Your task to perform on an android device: Open calendar and show me the first week of next month Image 0: 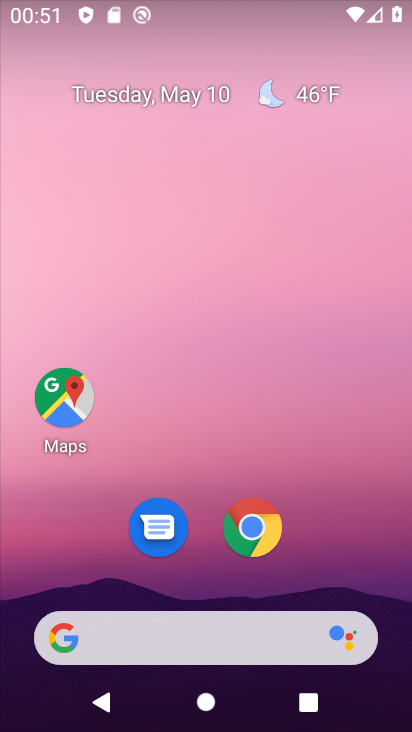
Step 0: drag from (318, 505) to (269, 184)
Your task to perform on an android device: Open calendar and show me the first week of next month Image 1: 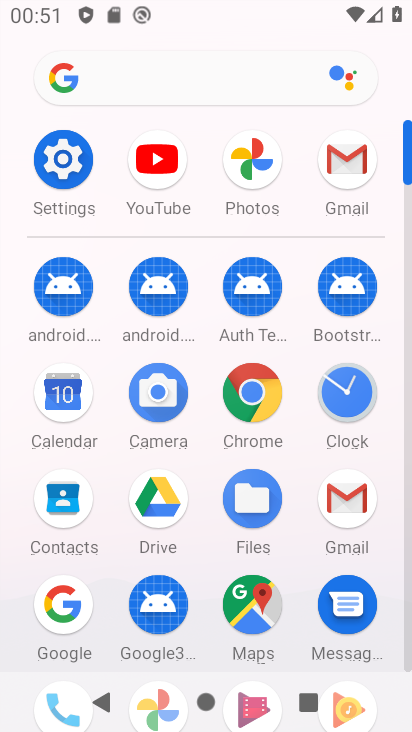
Step 1: click (62, 398)
Your task to perform on an android device: Open calendar and show me the first week of next month Image 2: 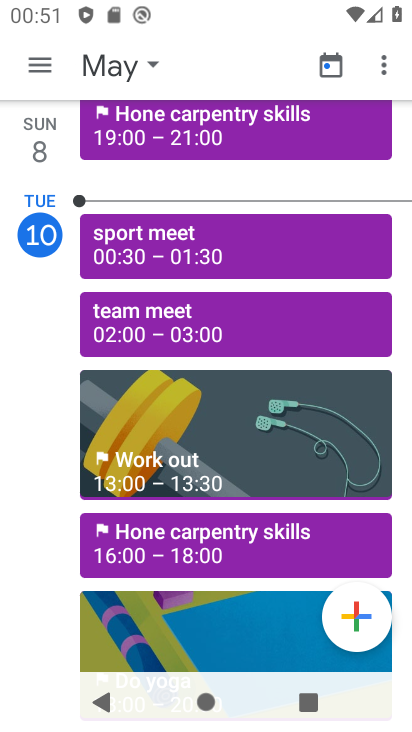
Step 2: click (123, 61)
Your task to perform on an android device: Open calendar and show me the first week of next month Image 3: 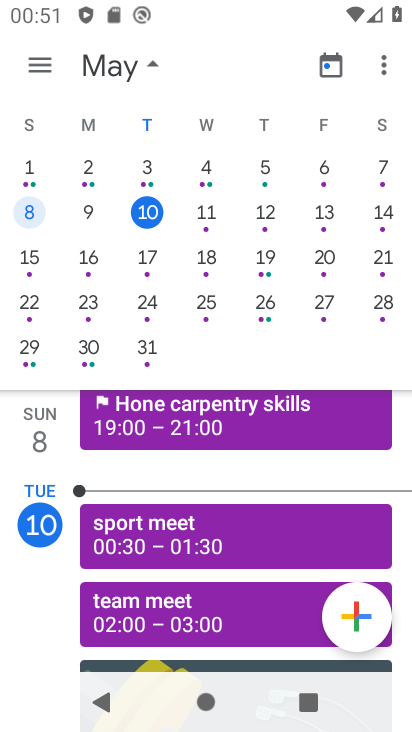
Step 3: drag from (203, 272) to (5, 269)
Your task to perform on an android device: Open calendar and show me the first week of next month Image 4: 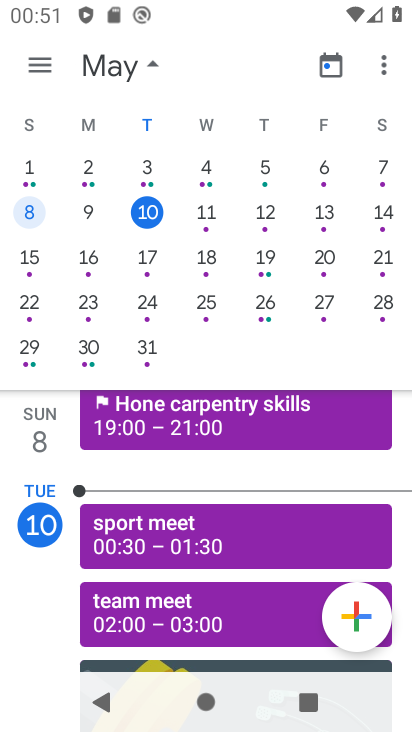
Step 4: drag from (339, 256) to (9, 254)
Your task to perform on an android device: Open calendar and show me the first week of next month Image 5: 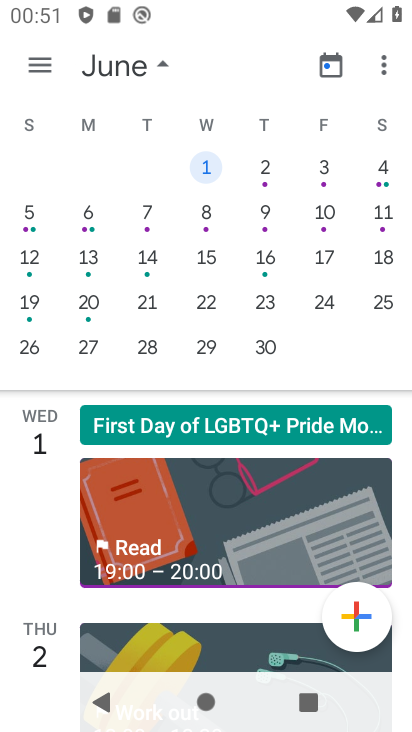
Step 5: click (31, 62)
Your task to perform on an android device: Open calendar and show me the first week of next month Image 6: 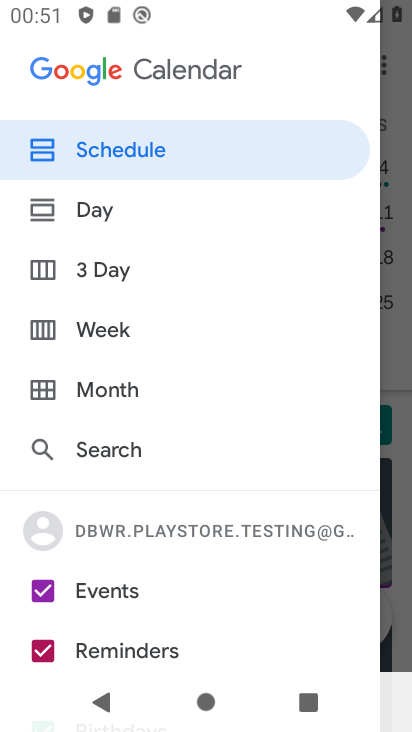
Step 6: click (77, 325)
Your task to perform on an android device: Open calendar and show me the first week of next month Image 7: 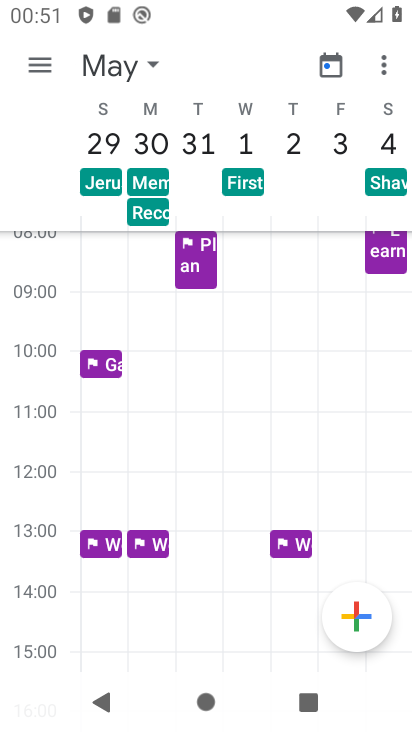
Step 7: task complete